Your task to perform on an android device: Go to ESPN.com Image 0: 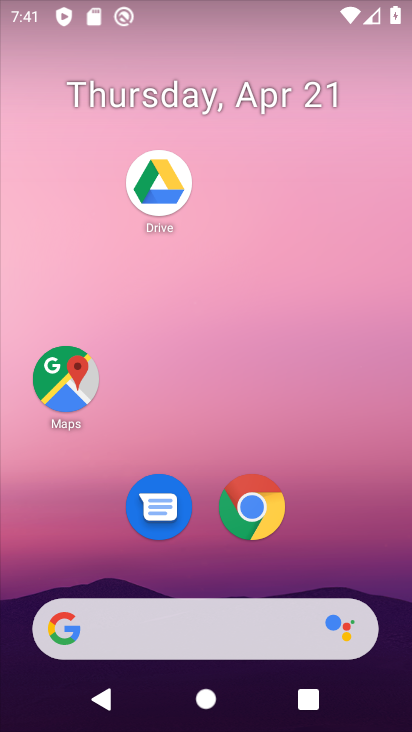
Step 0: drag from (346, 553) to (359, 114)
Your task to perform on an android device: Go to ESPN.com Image 1: 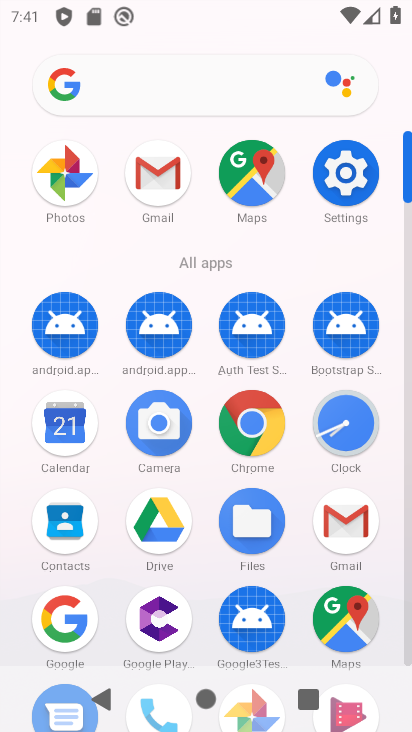
Step 1: click (256, 430)
Your task to perform on an android device: Go to ESPN.com Image 2: 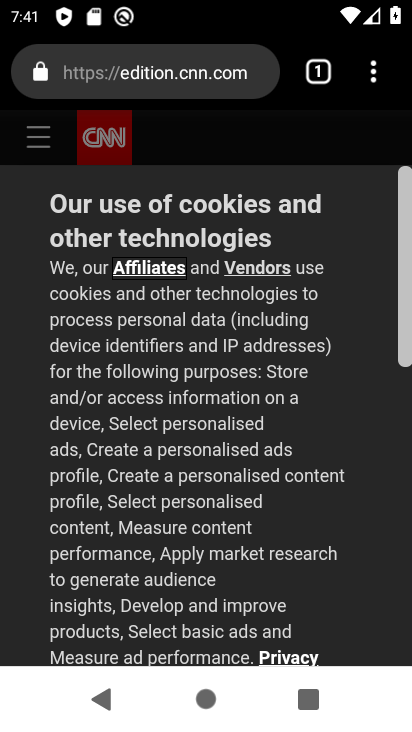
Step 2: click (241, 90)
Your task to perform on an android device: Go to ESPN.com Image 3: 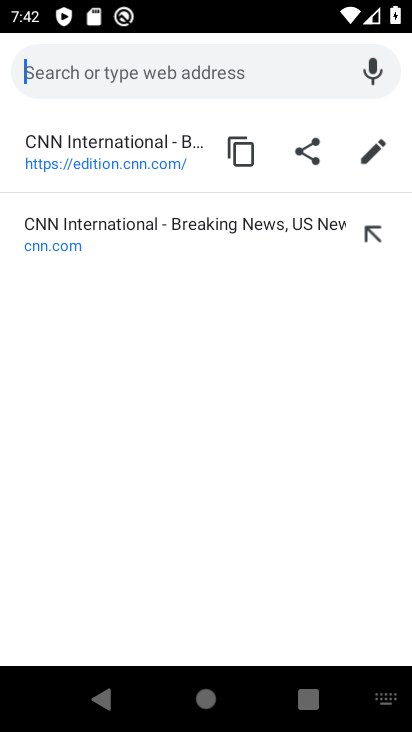
Step 3: type "espn.com"
Your task to perform on an android device: Go to ESPN.com Image 4: 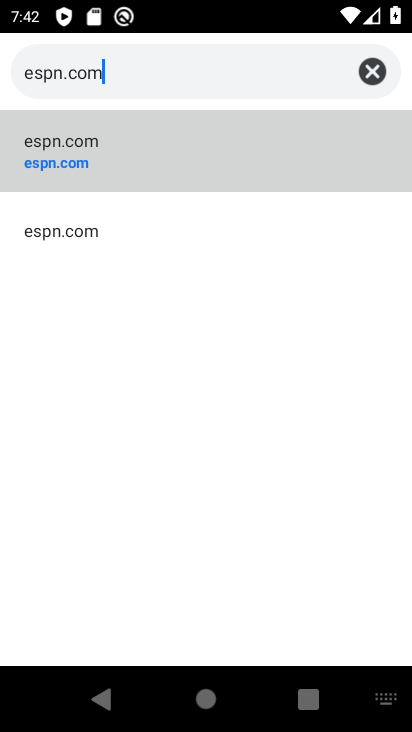
Step 4: click (228, 162)
Your task to perform on an android device: Go to ESPN.com Image 5: 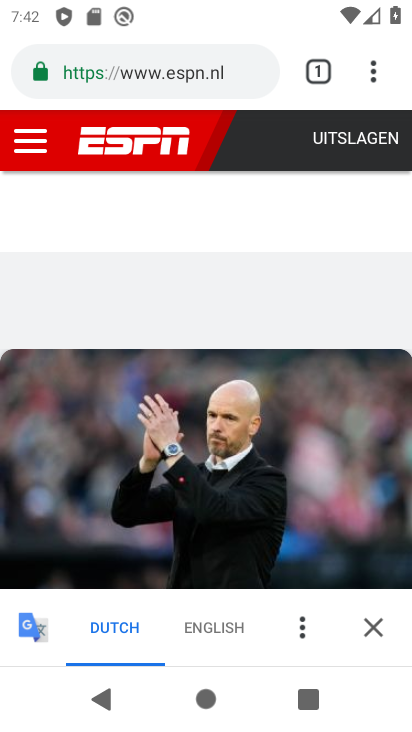
Step 5: task complete